Your task to perform on an android device: What's the weather like in Seoul? Image 0: 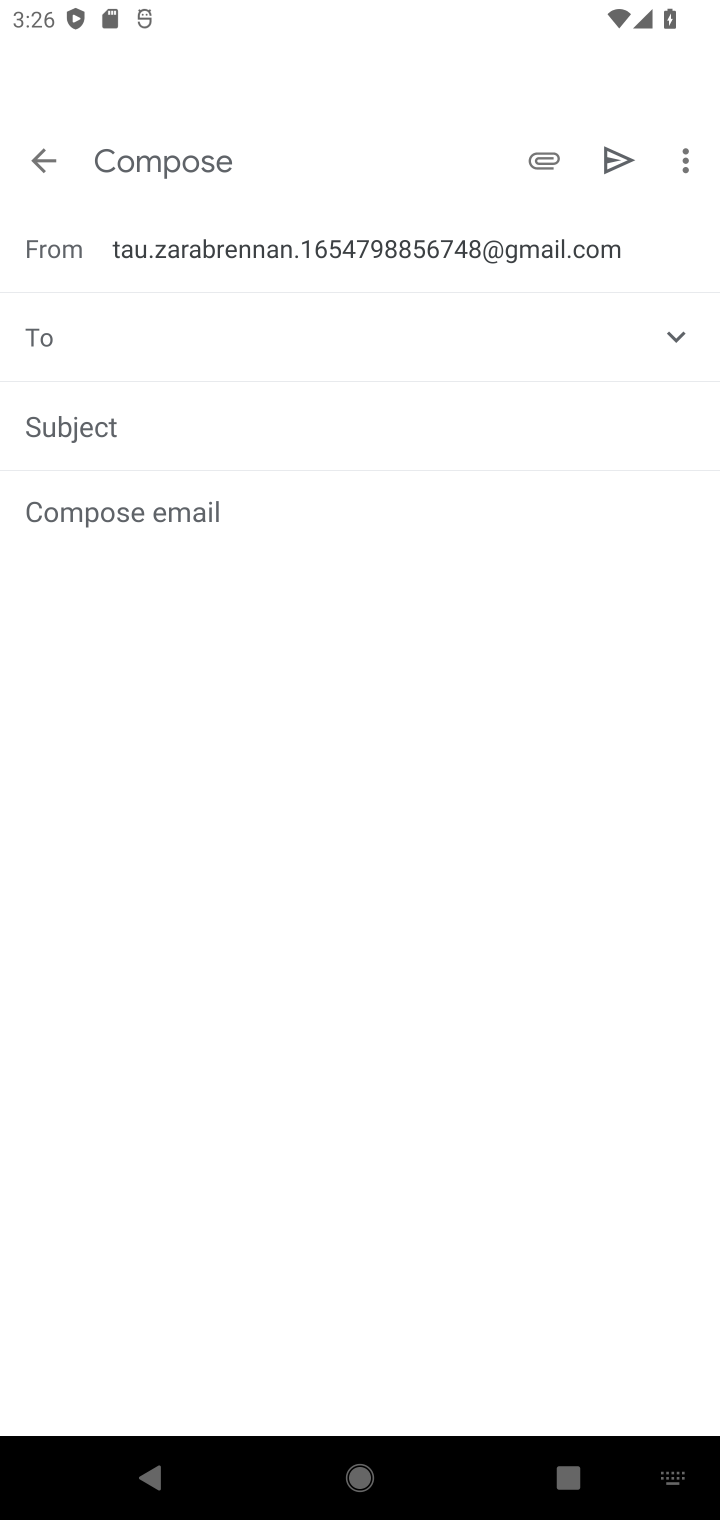
Step 0: press home button
Your task to perform on an android device: What's the weather like in Seoul? Image 1: 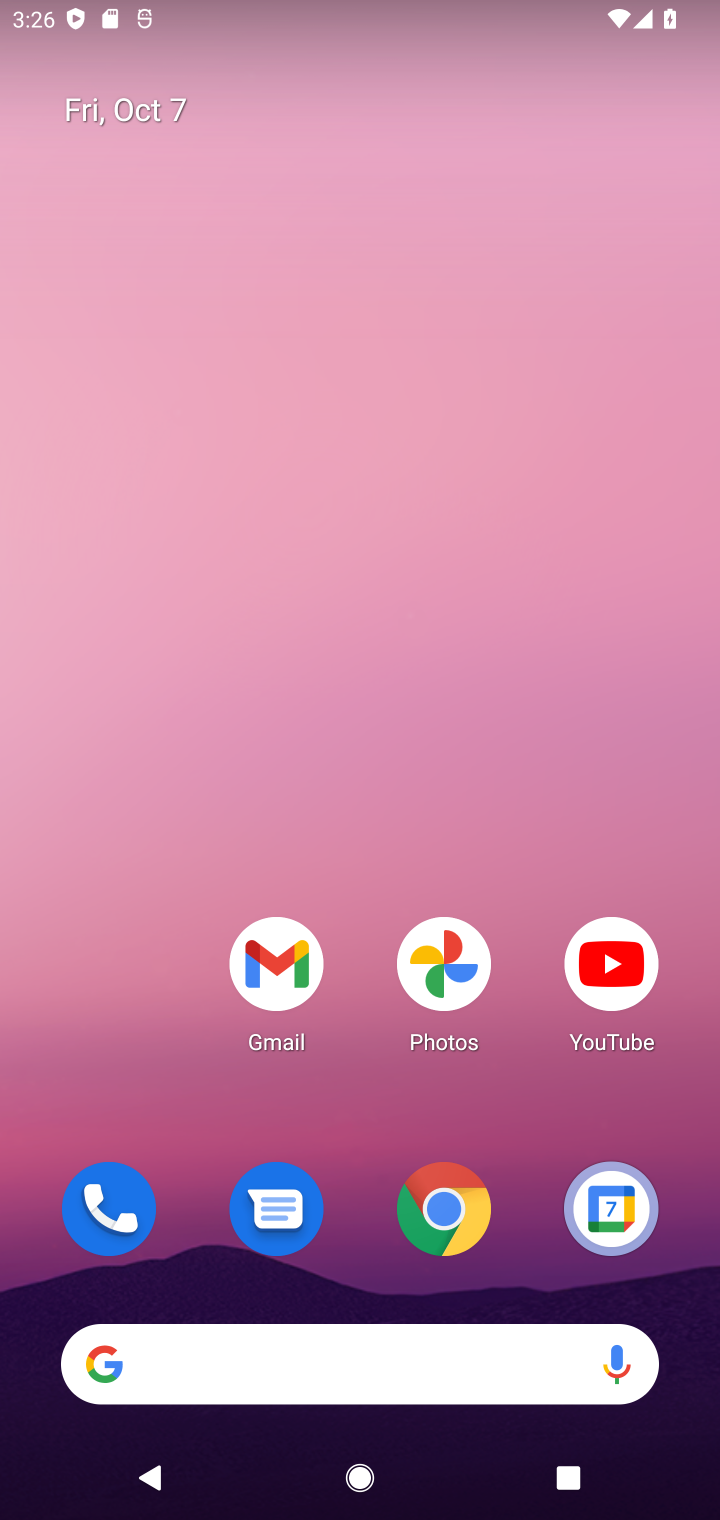
Step 1: click (260, 1377)
Your task to perform on an android device: What's the weather like in Seoul? Image 2: 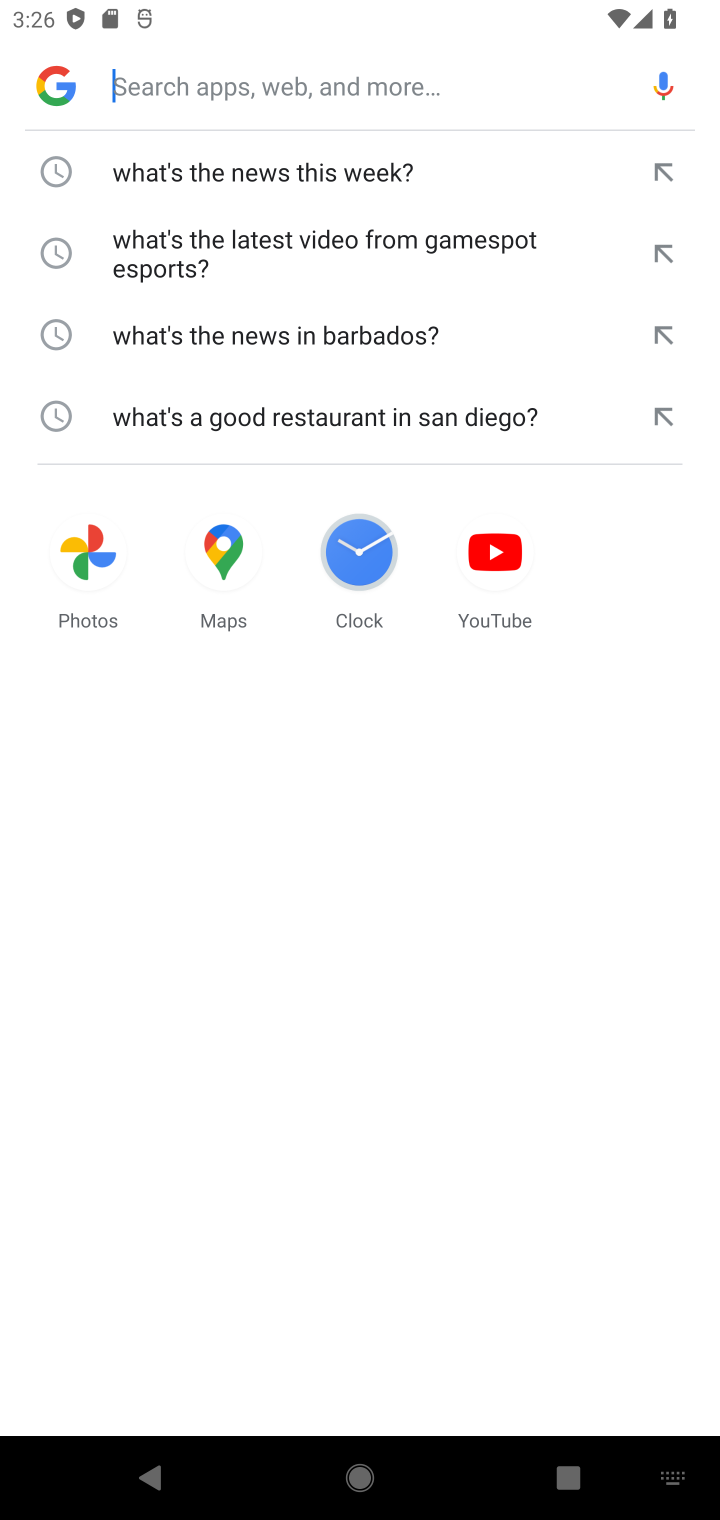
Step 2: type "What's the weather like in Seoul?"
Your task to perform on an android device: What's the weather like in Seoul? Image 3: 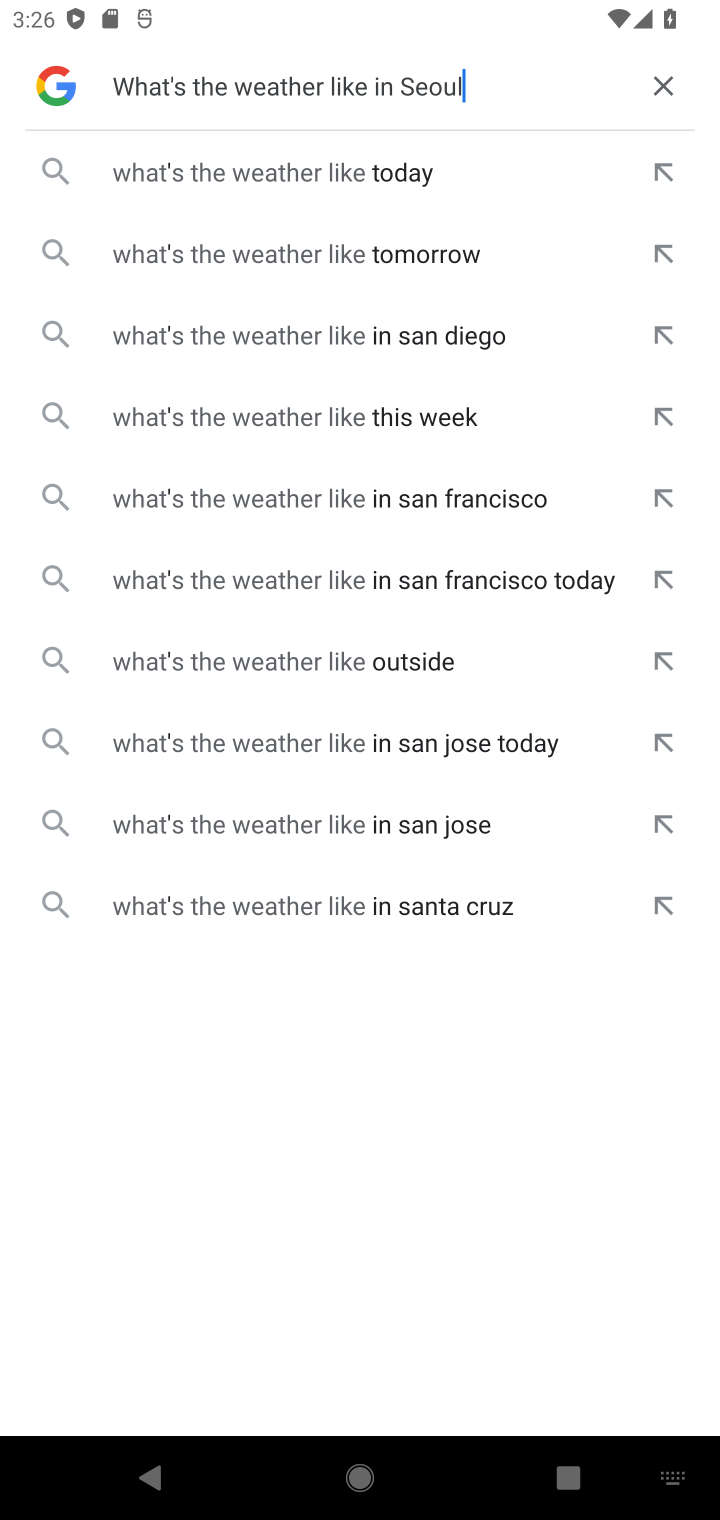
Step 3: press enter
Your task to perform on an android device: What's the weather like in Seoul? Image 4: 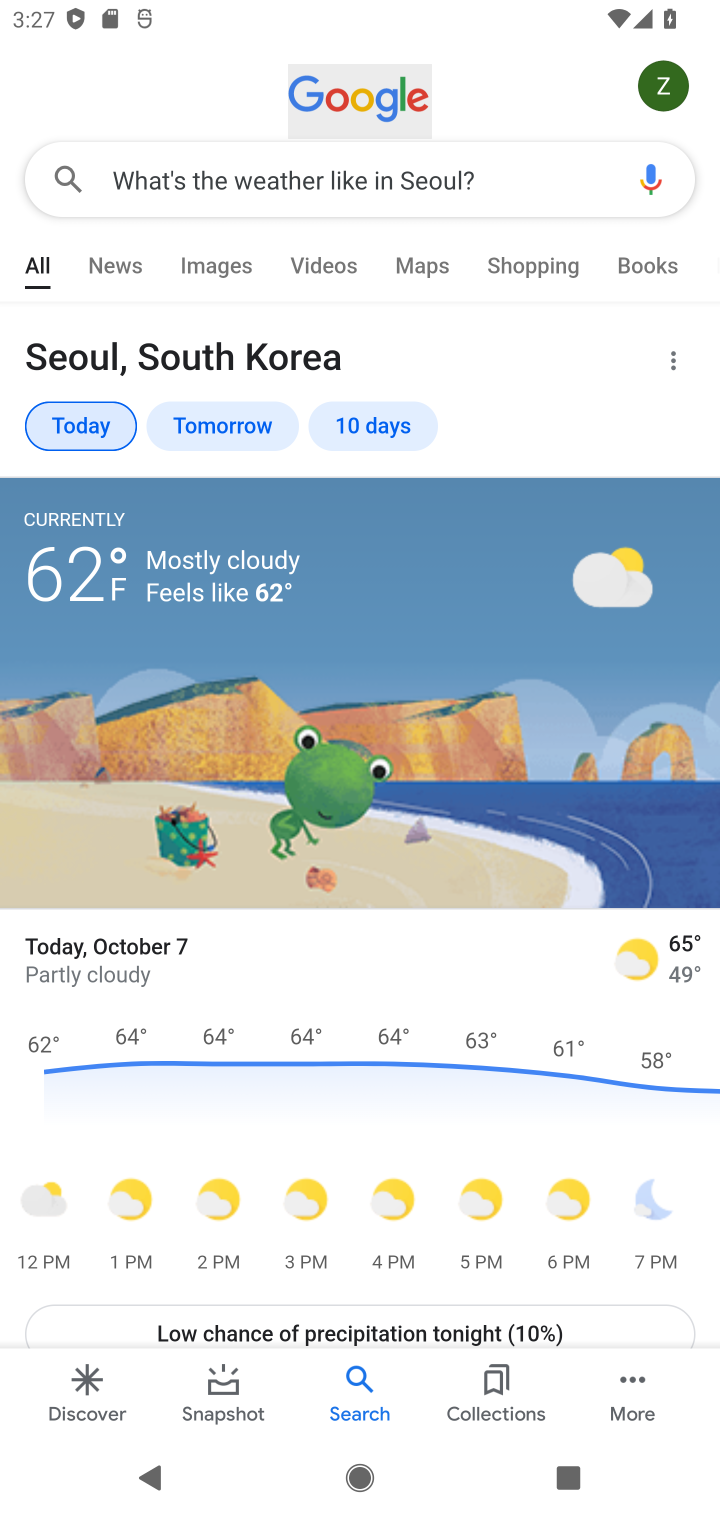
Step 4: task complete